Your task to perform on an android device: turn off airplane mode Image 0: 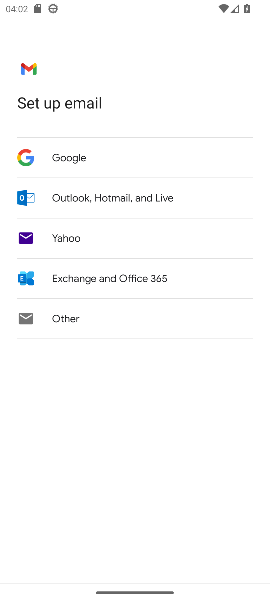
Step 0: press home button
Your task to perform on an android device: turn off airplane mode Image 1: 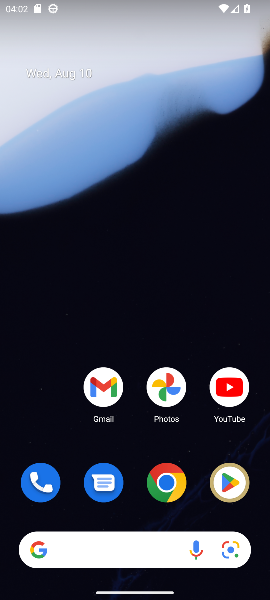
Step 1: drag from (176, 0) to (150, 438)
Your task to perform on an android device: turn off airplane mode Image 2: 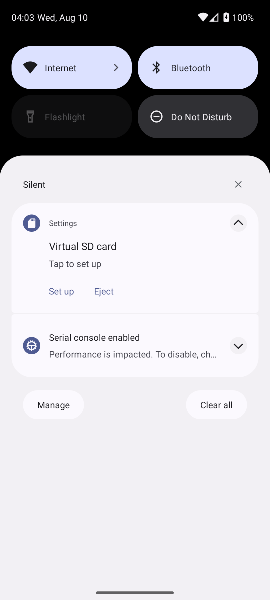
Step 2: drag from (172, 145) to (179, 490)
Your task to perform on an android device: turn off airplane mode Image 3: 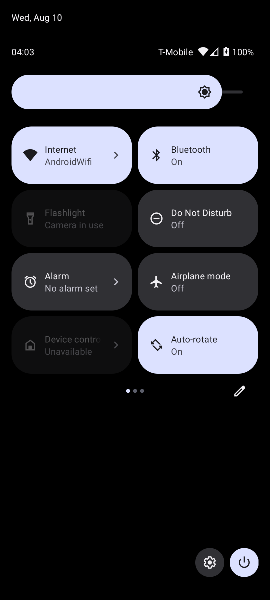
Step 3: click (204, 274)
Your task to perform on an android device: turn off airplane mode Image 4: 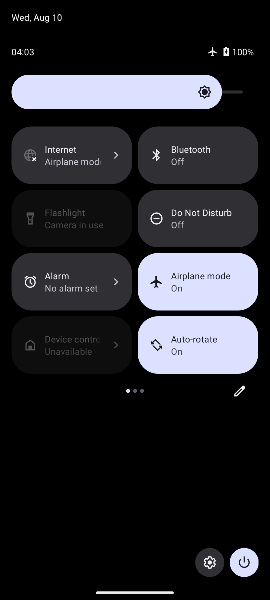
Step 4: task complete